Your task to perform on an android device: open chrome and create a bookmark for the current page Image 0: 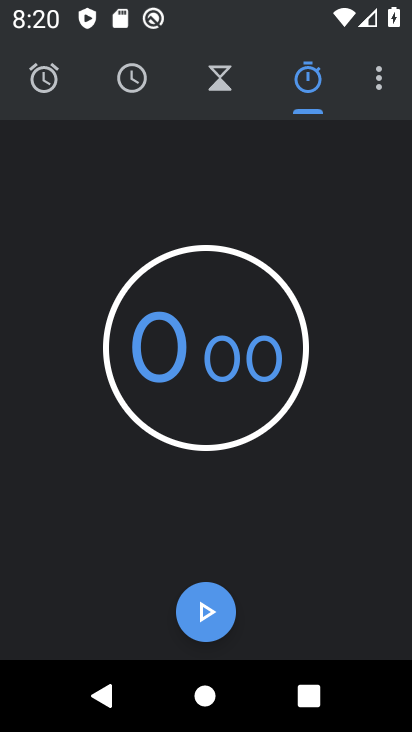
Step 0: press back button
Your task to perform on an android device: open chrome and create a bookmark for the current page Image 1: 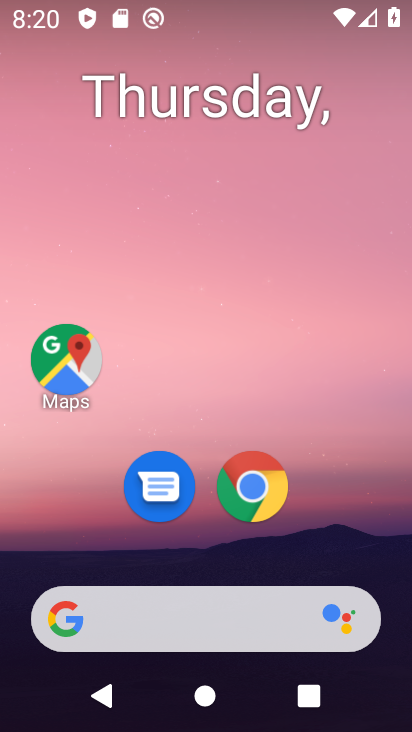
Step 1: click (265, 478)
Your task to perform on an android device: open chrome and create a bookmark for the current page Image 2: 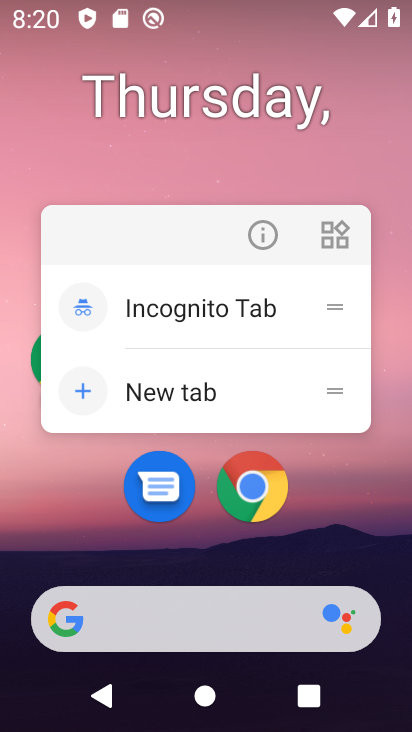
Step 2: click (261, 478)
Your task to perform on an android device: open chrome and create a bookmark for the current page Image 3: 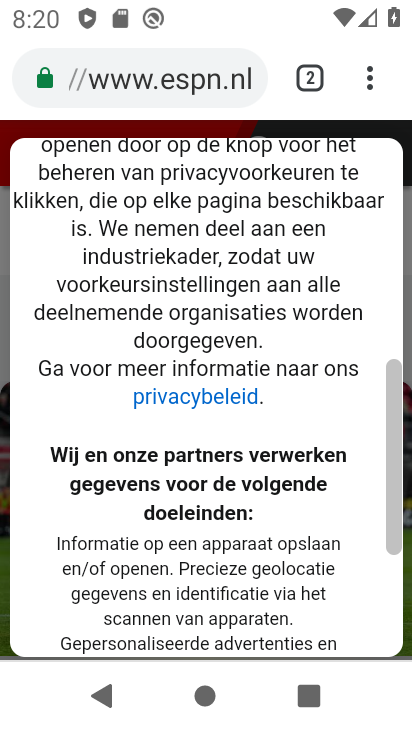
Step 3: task complete